Your task to perform on an android device: Search for Italian restaurants on Maps Image 0: 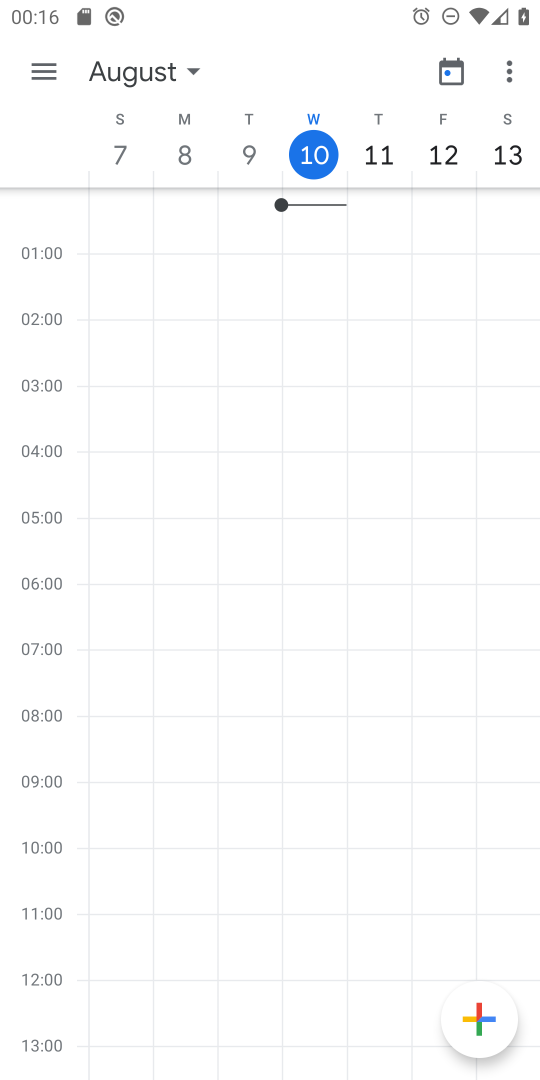
Step 0: press home button
Your task to perform on an android device: Search for Italian restaurants on Maps Image 1: 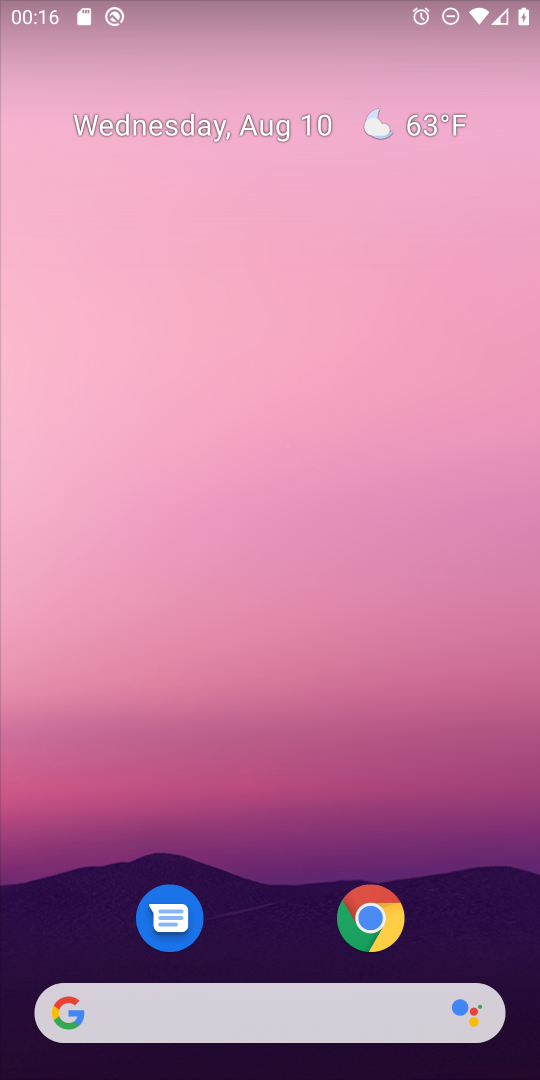
Step 1: drag from (358, 749) to (260, 57)
Your task to perform on an android device: Search for Italian restaurants on Maps Image 2: 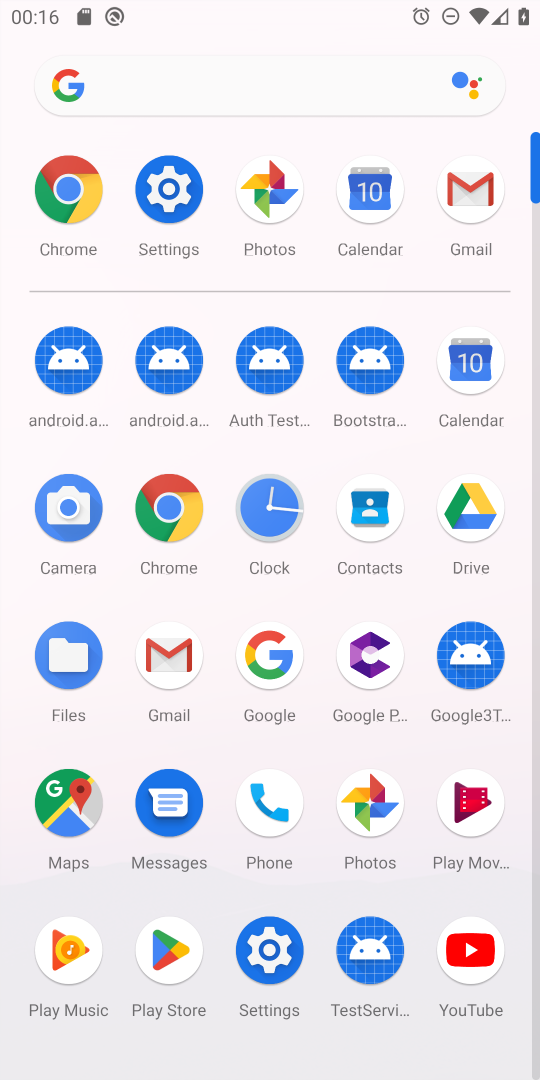
Step 2: click (75, 796)
Your task to perform on an android device: Search for Italian restaurants on Maps Image 3: 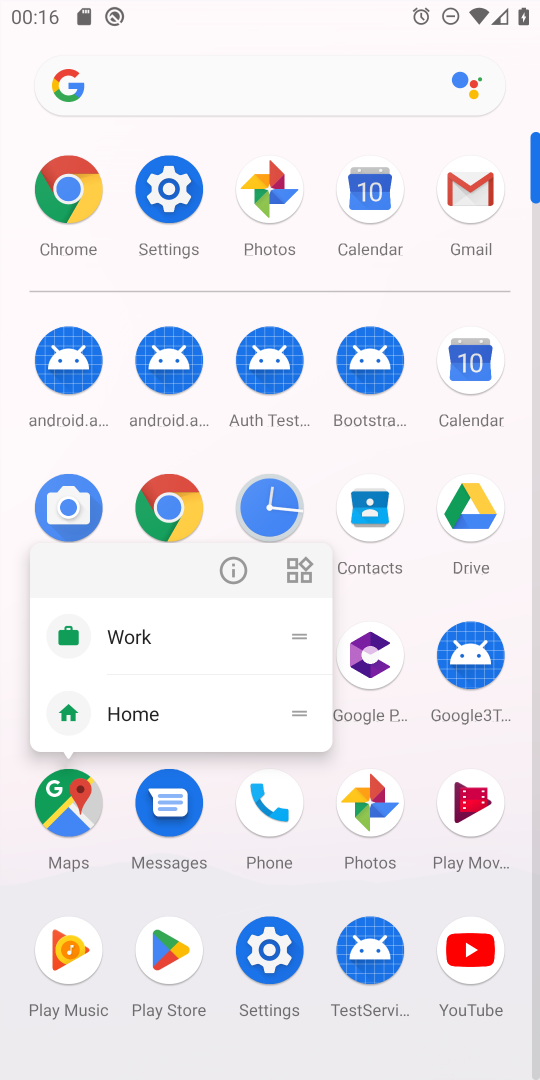
Step 3: click (67, 801)
Your task to perform on an android device: Search for Italian restaurants on Maps Image 4: 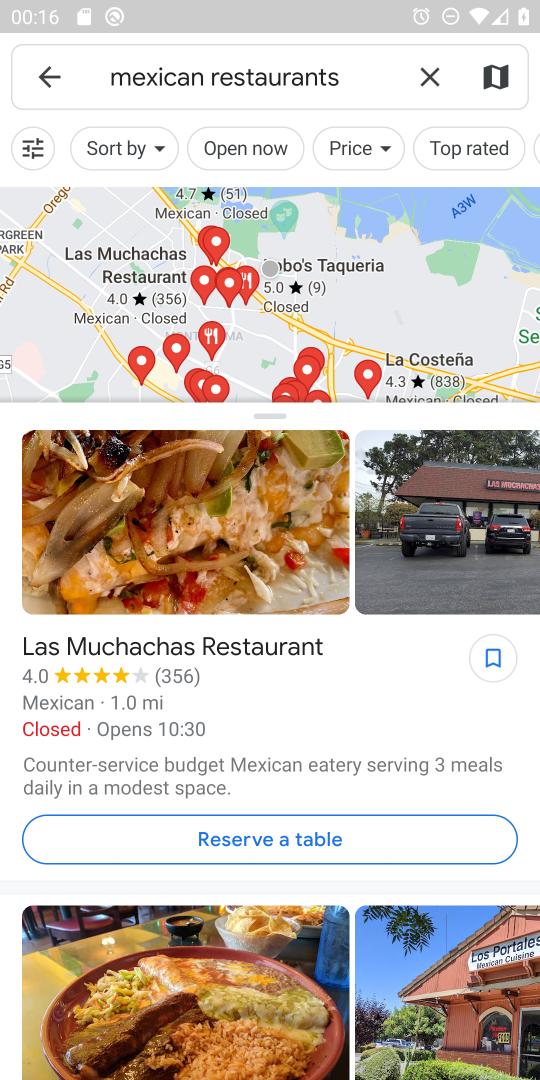
Step 4: click (422, 70)
Your task to perform on an android device: Search for Italian restaurants on Maps Image 5: 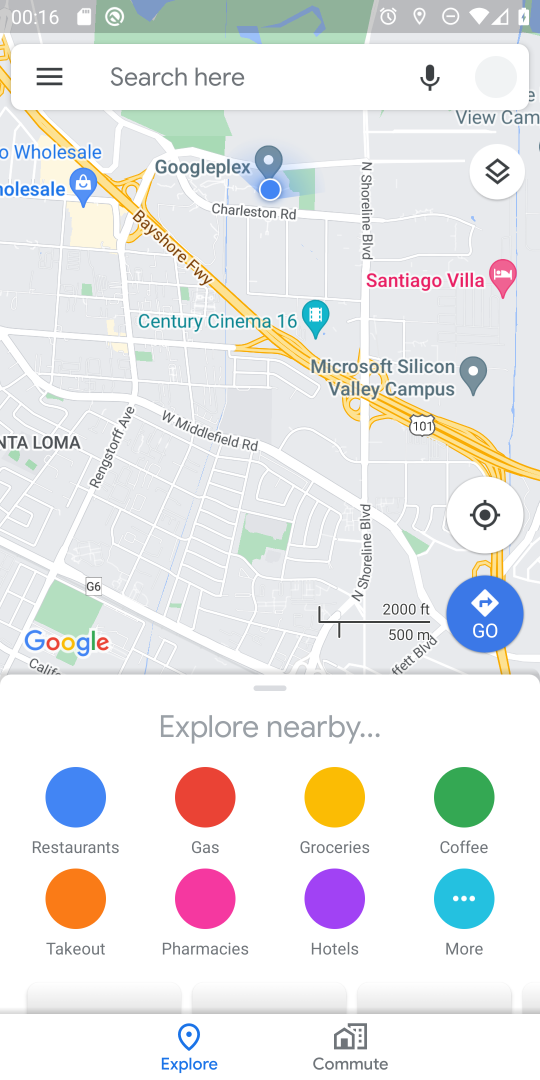
Step 5: click (312, 64)
Your task to perform on an android device: Search for Italian restaurants on Maps Image 6: 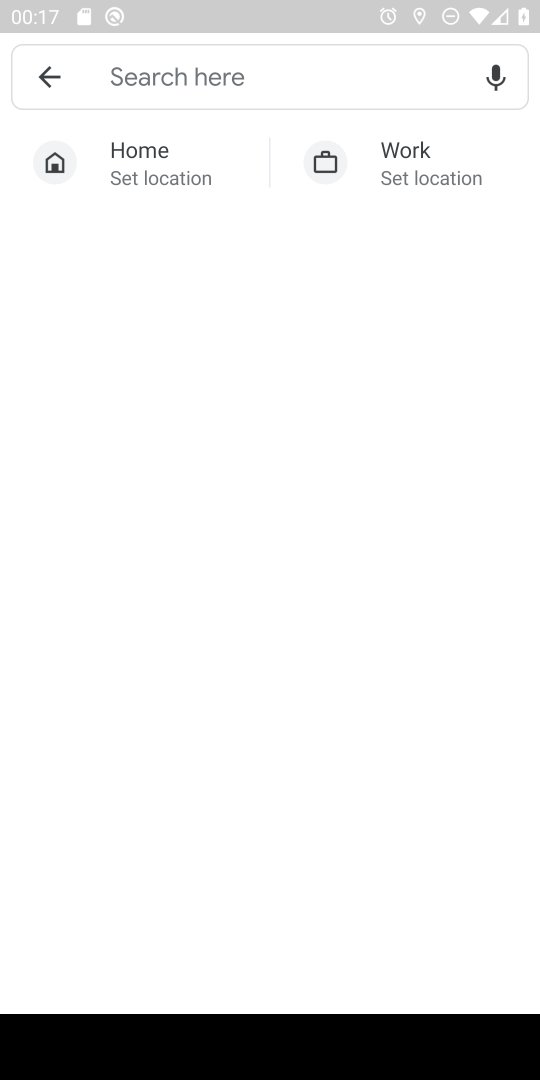
Step 6: type "Italian restaurants"
Your task to perform on an android device: Search for Italian restaurants on Maps Image 7: 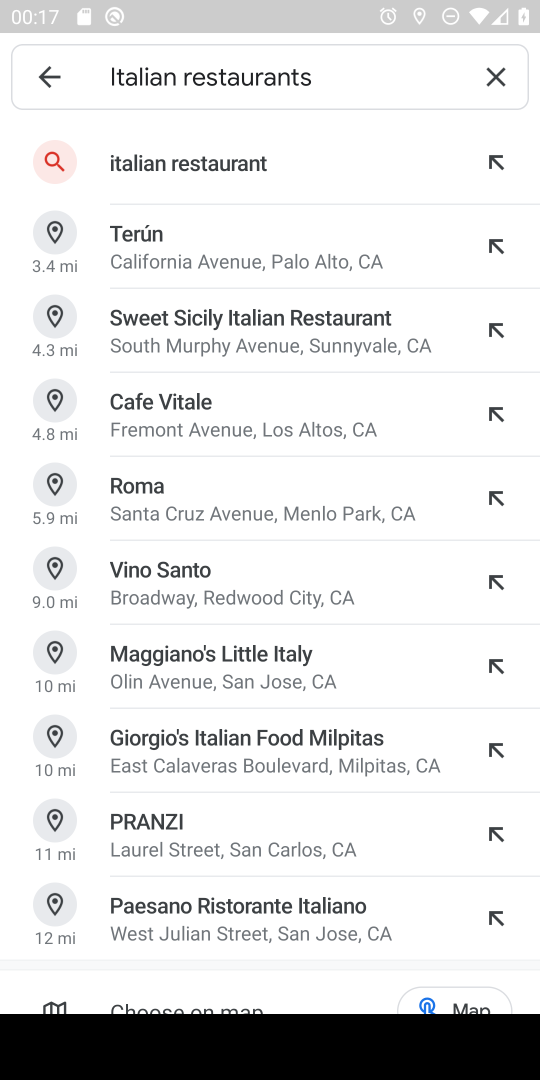
Step 7: press enter
Your task to perform on an android device: Search for Italian restaurants on Maps Image 8: 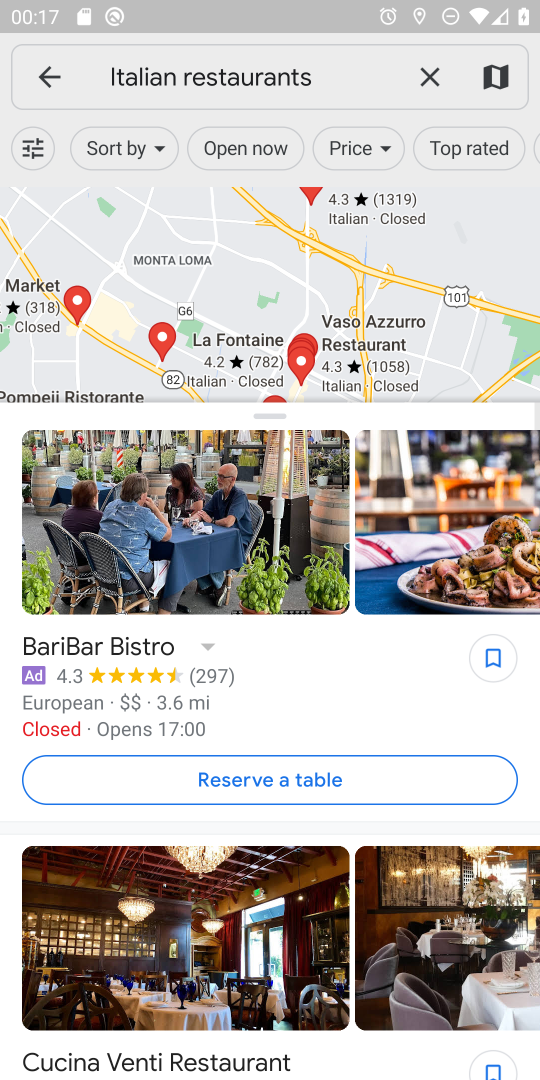
Step 8: drag from (351, 674) to (383, 170)
Your task to perform on an android device: Search for Italian restaurants on Maps Image 9: 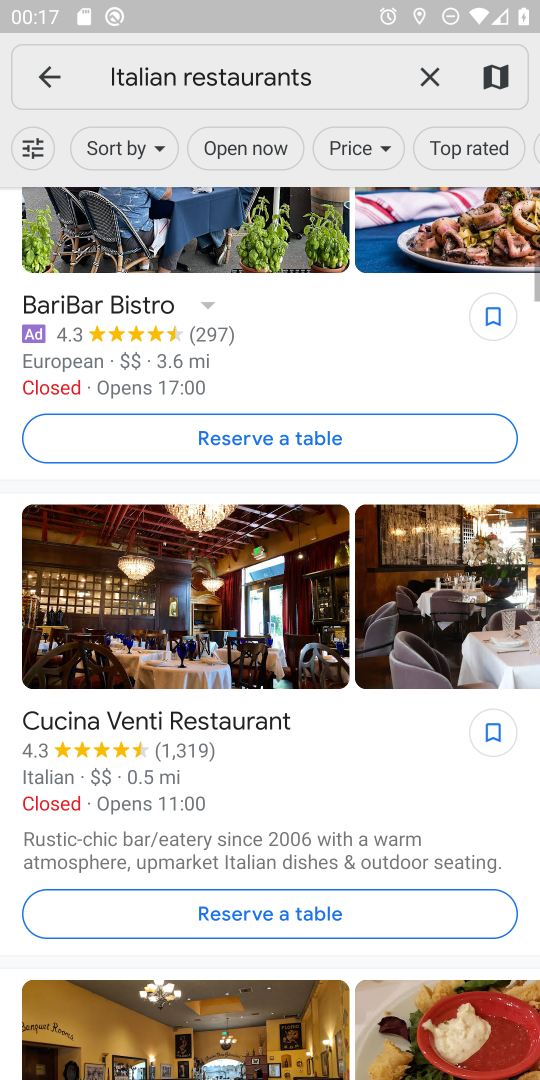
Step 9: drag from (388, 662) to (477, 300)
Your task to perform on an android device: Search for Italian restaurants on Maps Image 10: 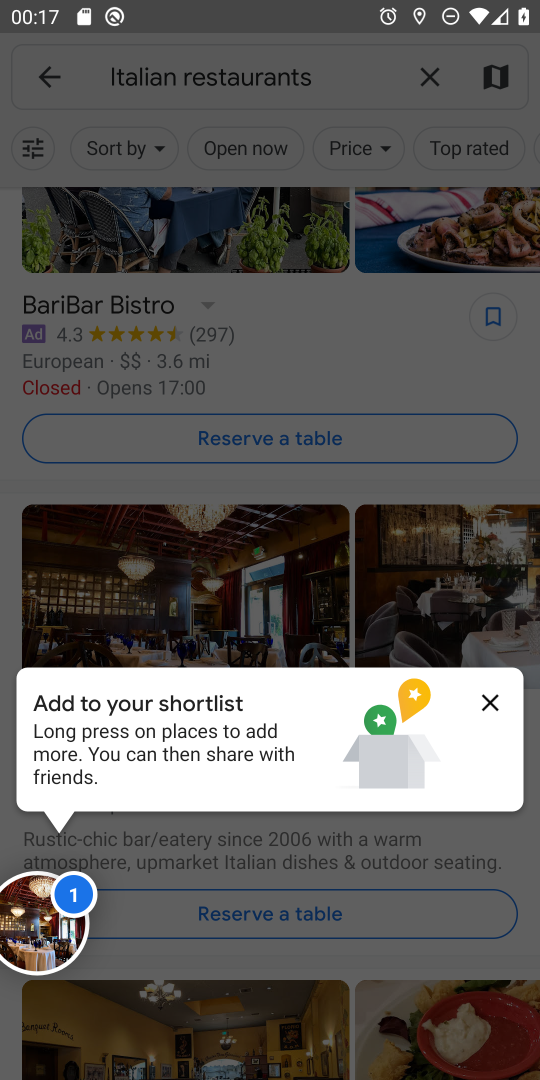
Step 10: click (316, 460)
Your task to perform on an android device: Search for Italian restaurants on Maps Image 11: 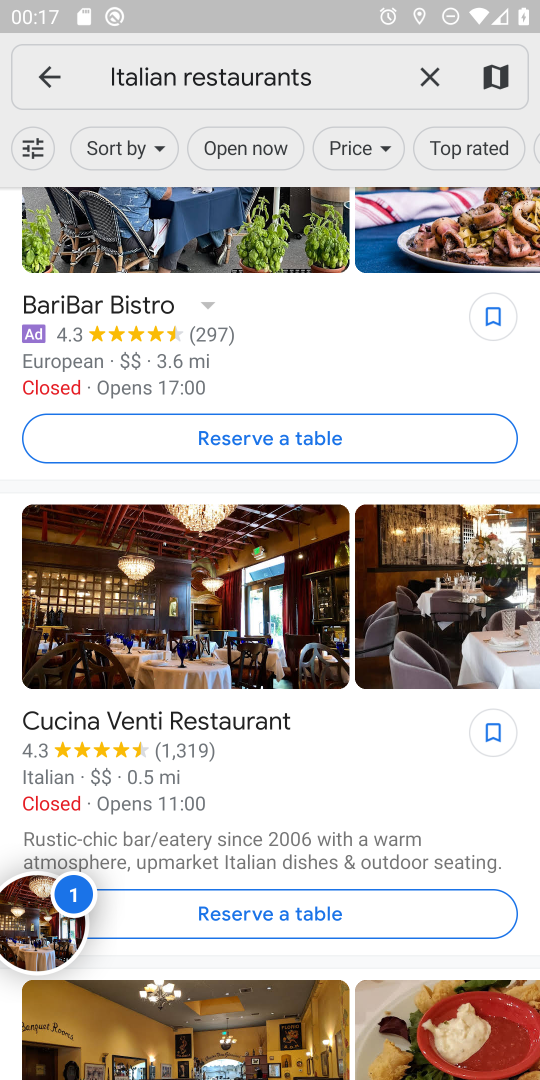
Step 11: task complete